Your task to perform on an android device: Open Reddit.com Image 0: 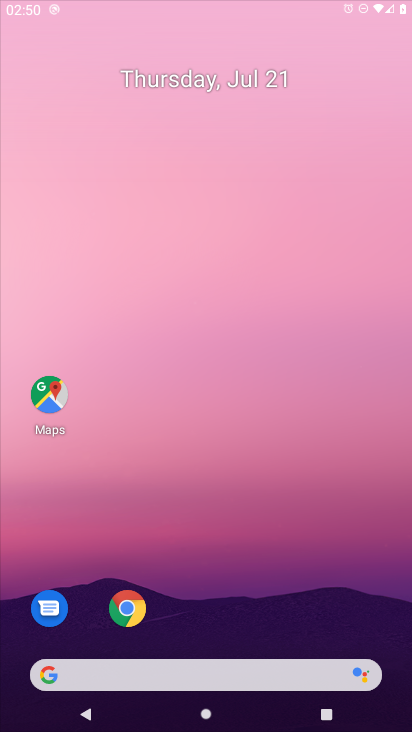
Step 0: press home button
Your task to perform on an android device: Open Reddit.com Image 1: 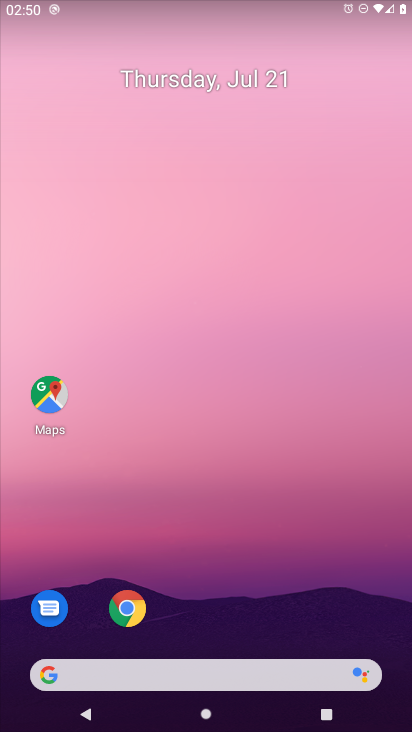
Step 1: click (51, 677)
Your task to perform on an android device: Open Reddit.com Image 2: 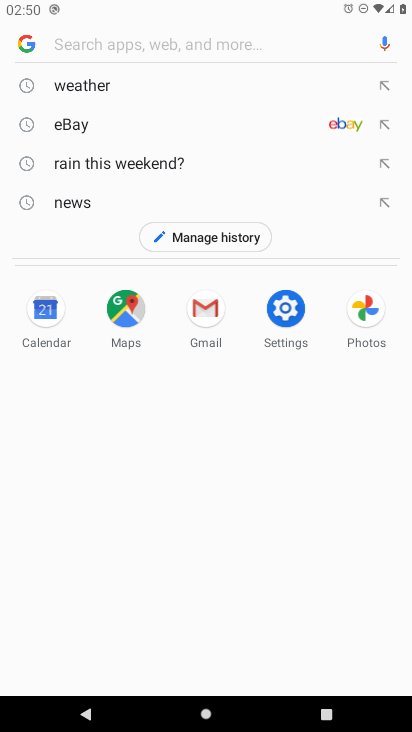
Step 2: type "Reddit.com"
Your task to perform on an android device: Open Reddit.com Image 3: 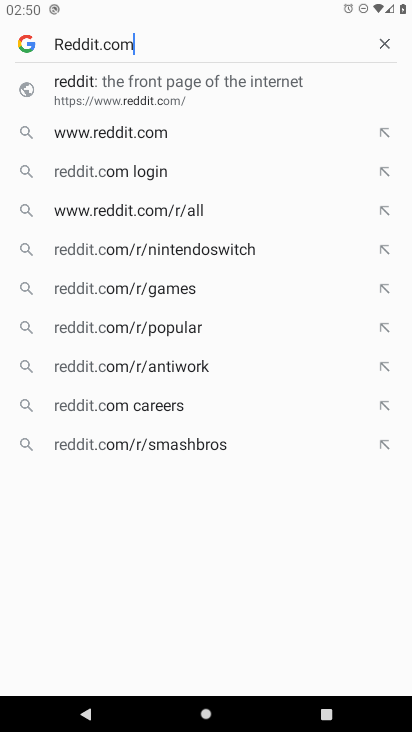
Step 3: press enter
Your task to perform on an android device: Open Reddit.com Image 4: 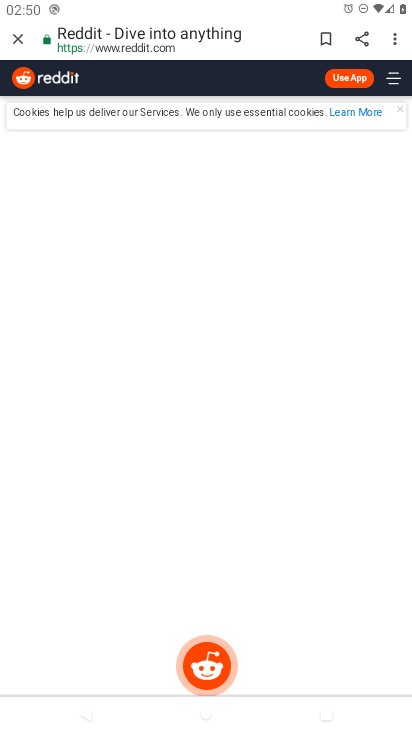
Step 4: task complete